Your task to perform on an android device: Open Google Chrome and click the shortcut for Amazon.com Image 0: 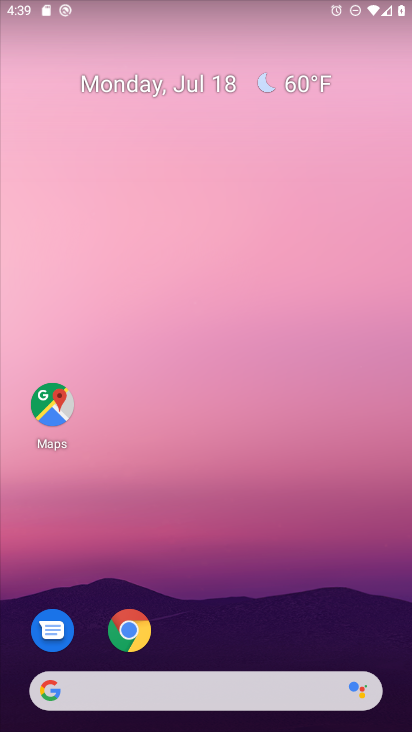
Step 0: click (127, 634)
Your task to perform on an android device: Open Google Chrome and click the shortcut for Amazon.com Image 1: 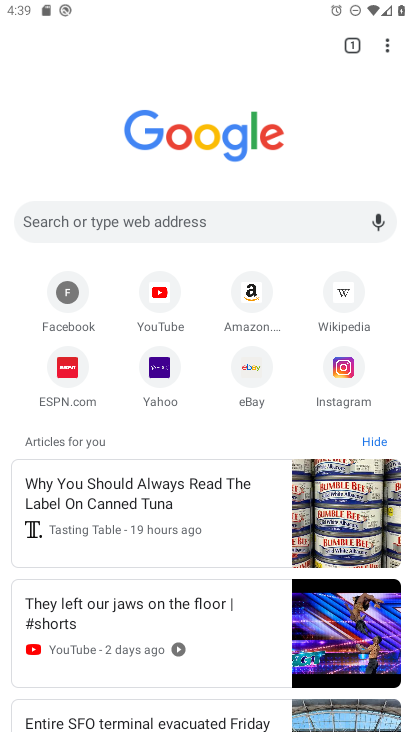
Step 1: click (262, 294)
Your task to perform on an android device: Open Google Chrome and click the shortcut for Amazon.com Image 2: 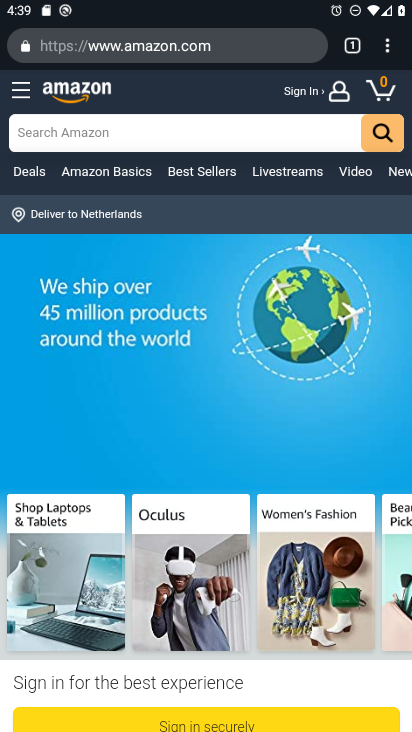
Step 2: task complete